Your task to perform on an android device: What is the recent news? Image 0: 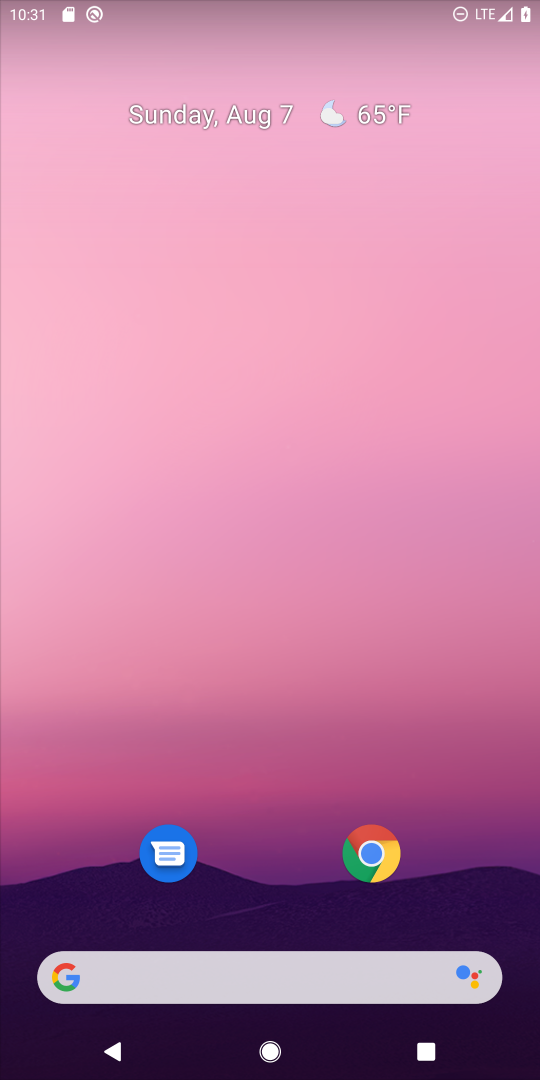
Step 0: drag from (222, 920) to (230, 293)
Your task to perform on an android device: What is the recent news? Image 1: 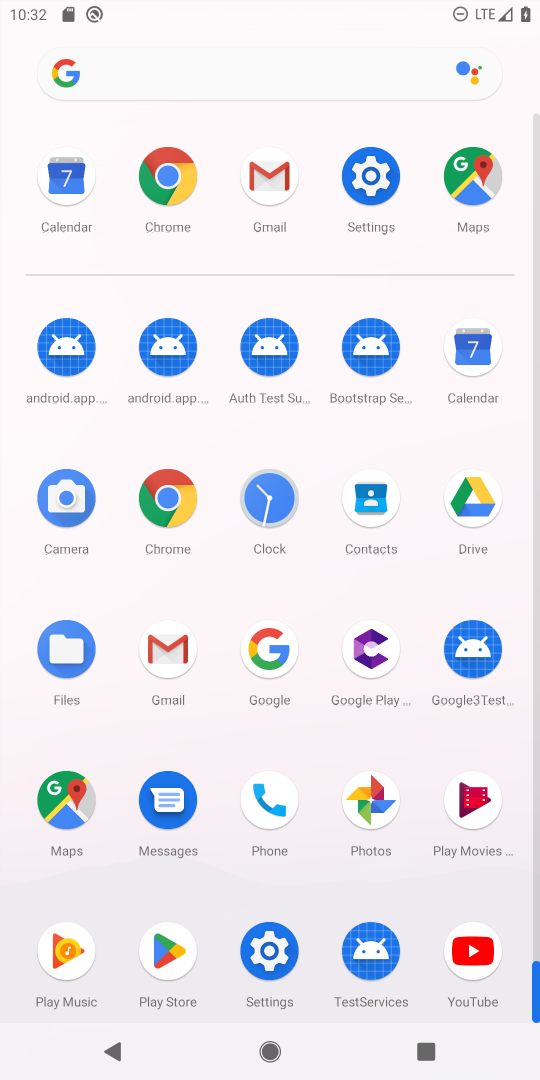
Step 1: click (169, 183)
Your task to perform on an android device: What is the recent news? Image 2: 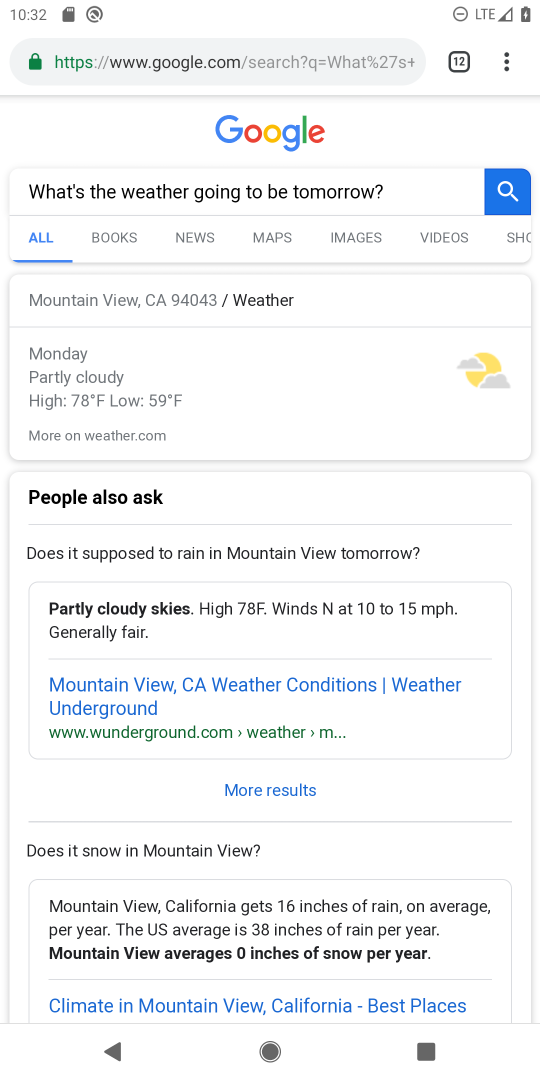
Step 2: click (502, 47)
Your task to perform on an android device: What is the recent news? Image 3: 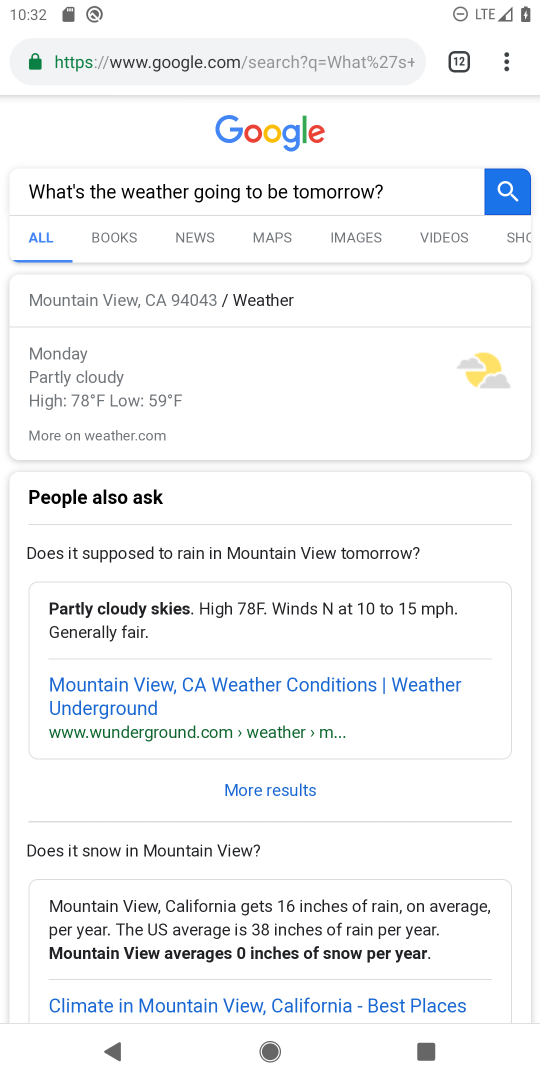
Step 3: click (506, 55)
Your task to perform on an android device: What is the recent news? Image 4: 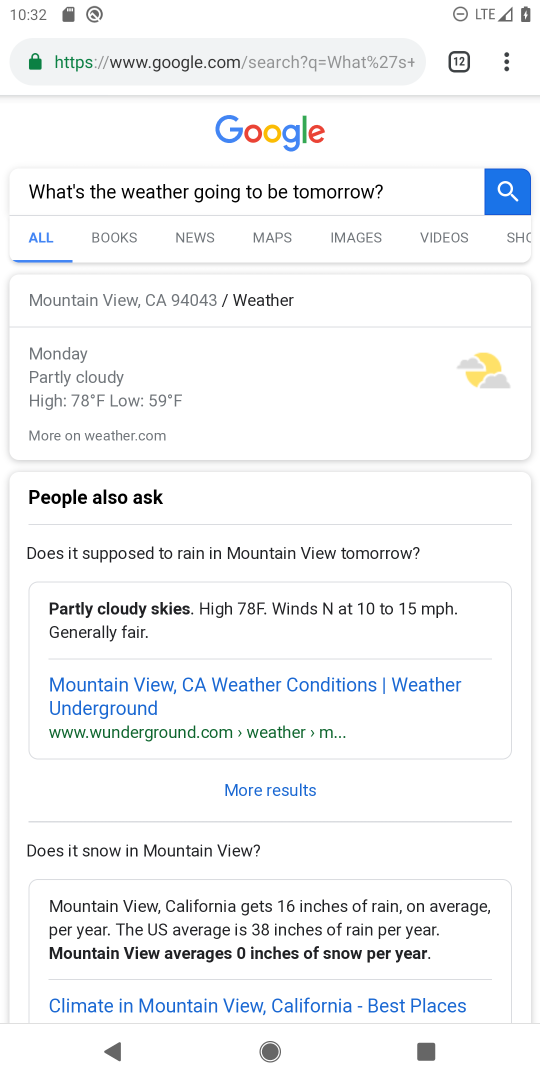
Step 4: click (498, 63)
Your task to perform on an android device: What is the recent news? Image 5: 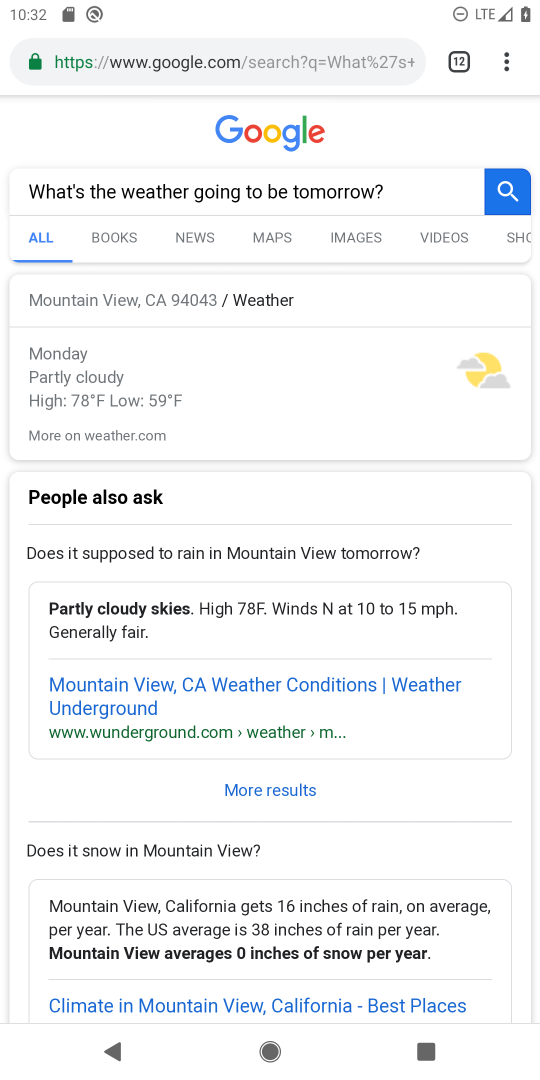
Step 5: click (512, 58)
Your task to perform on an android device: What is the recent news? Image 6: 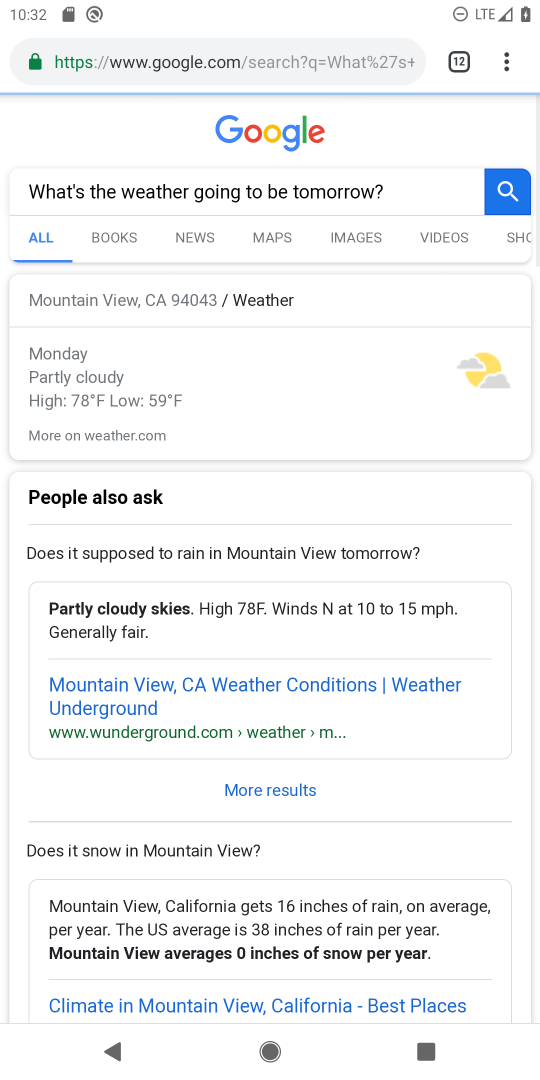
Step 6: click (512, 58)
Your task to perform on an android device: What is the recent news? Image 7: 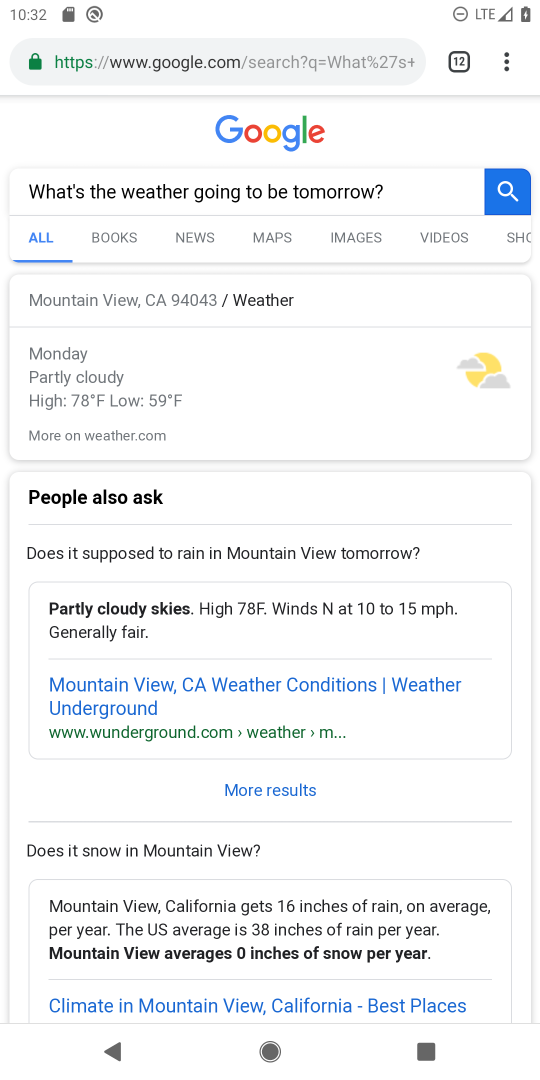
Step 7: click (513, 58)
Your task to perform on an android device: What is the recent news? Image 8: 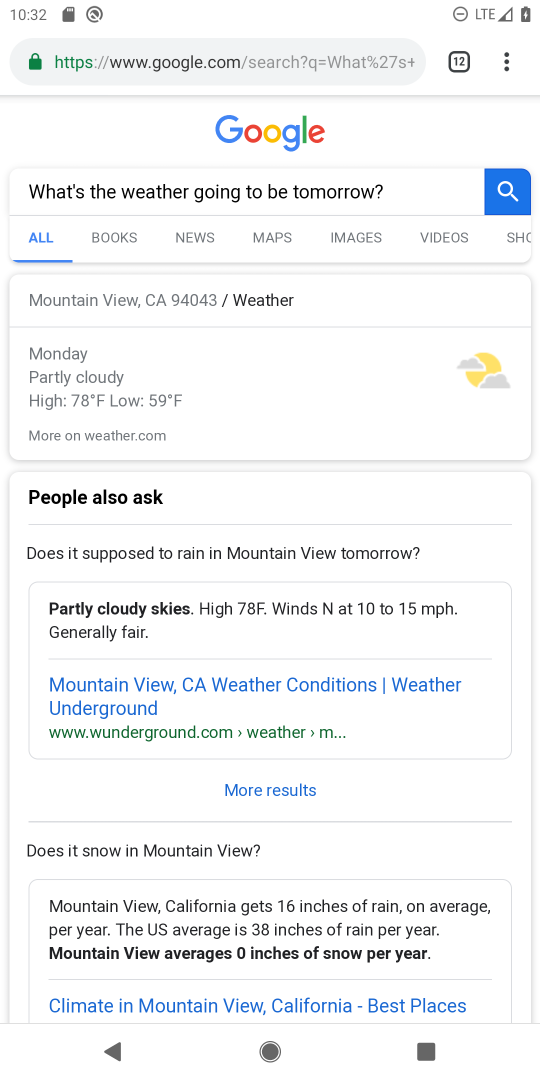
Step 8: click (513, 58)
Your task to perform on an android device: What is the recent news? Image 9: 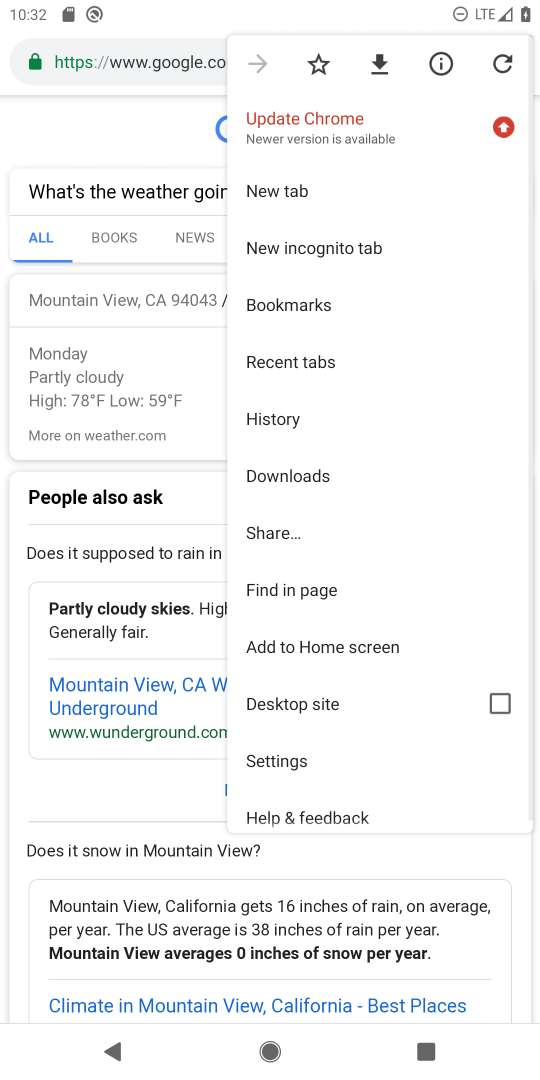
Step 9: click (276, 196)
Your task to perform on an android device: What is the recent news? Image 10: 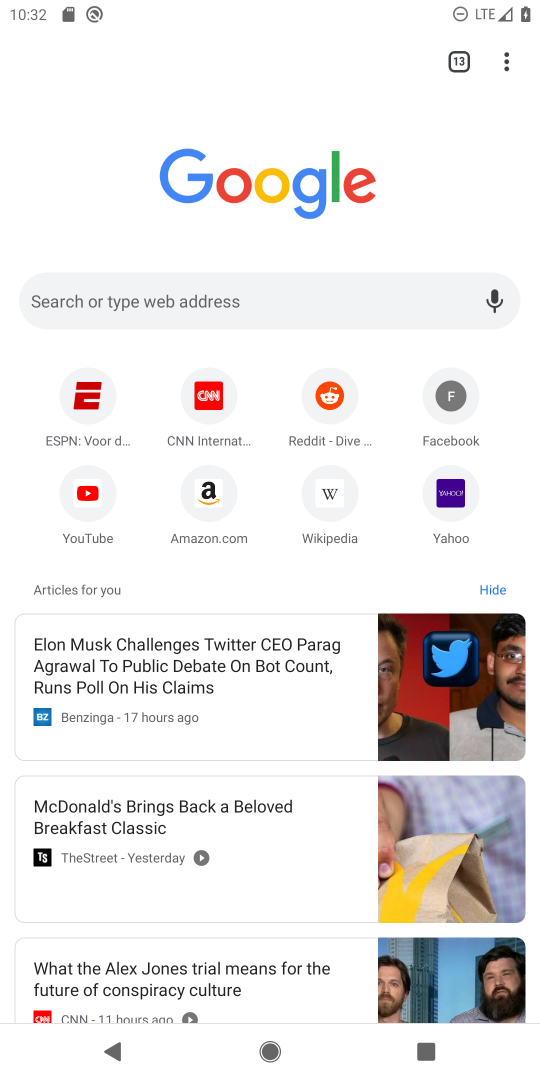
Step 10: click (197, 281)
Your task to perform on an android device: What is the recent news? Image 11: 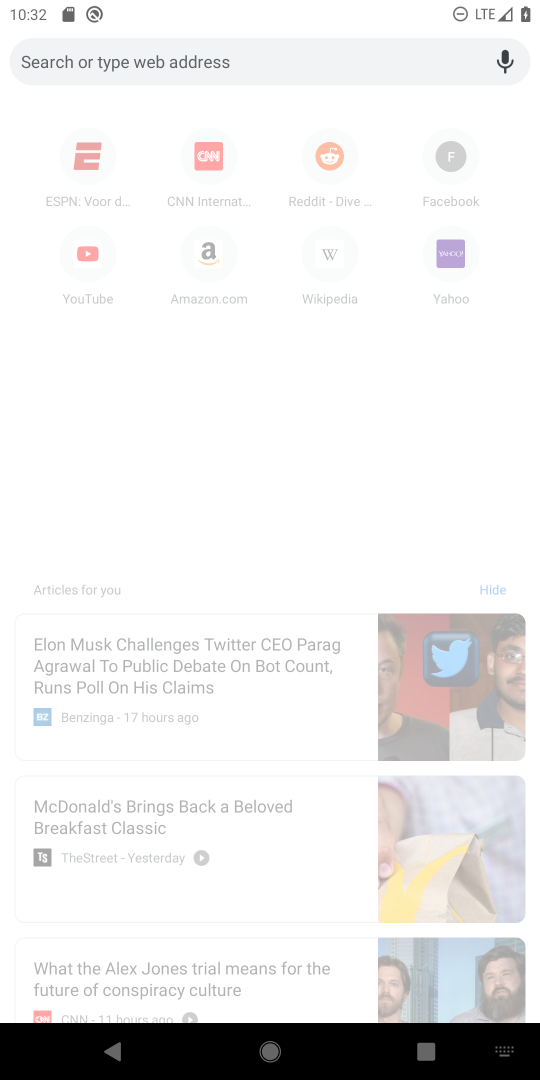
Step 11: type "What is the recent news? "
Your task to perform on an android device: What is the recent news? Image 12: 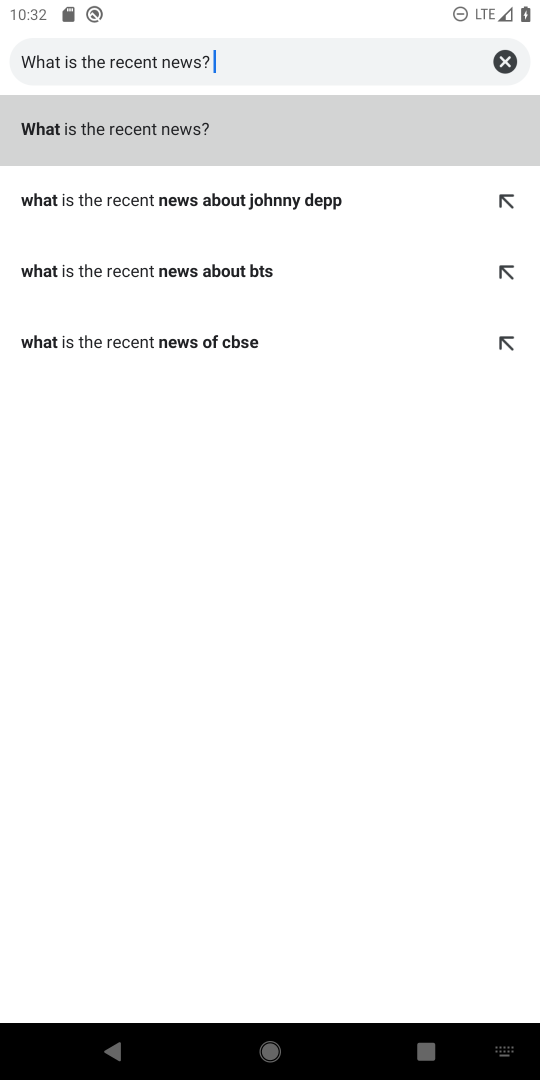
Step 12: click (202, 121)
Your task to perform on an android device: What is the recent news? Image 13: 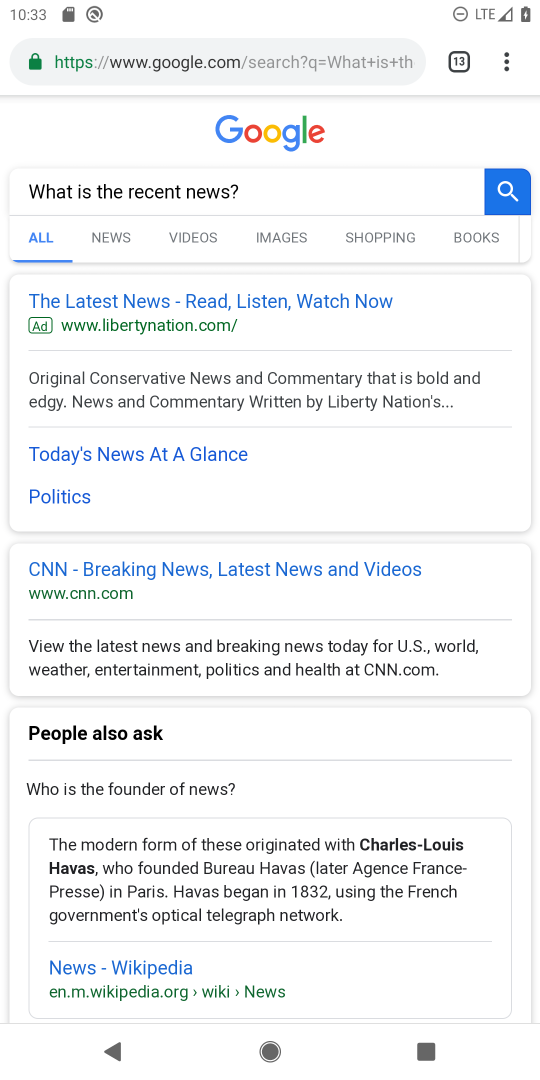
Step 13: task complete